Your task to perform on an android device: empty trash in google photos Image 0: 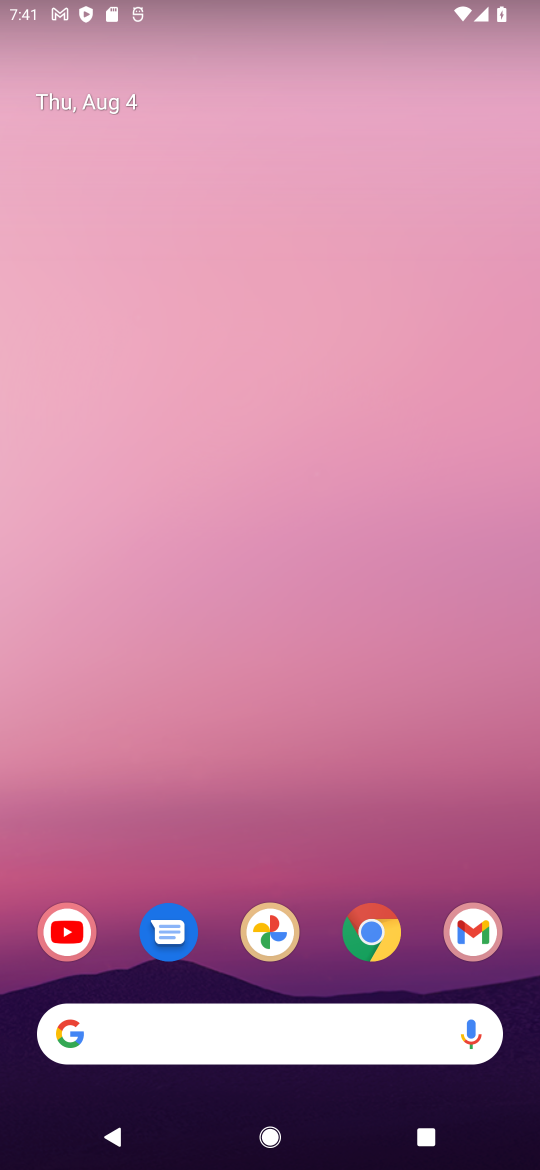
Step 0: click (260, 937)
Your task to perform on an android device: empty trash in google photos Image 1: 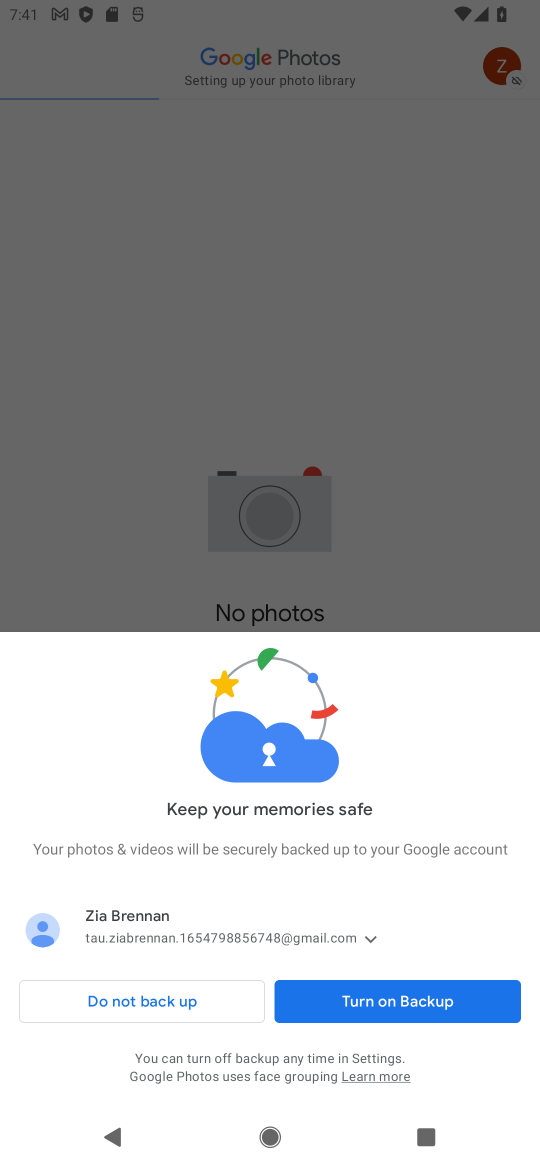
Step 1: click (360, 1003)
Your task to perform on an android device: empty trash in google photos Image 2: 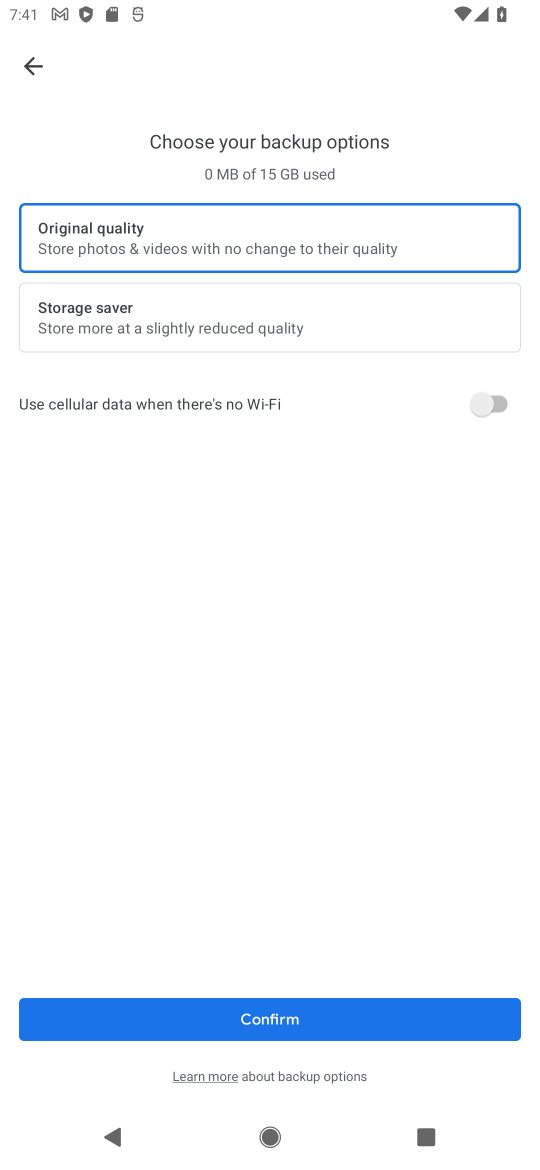
Step 2: click (420, 1026)
Your task to perform on an android device: empty trash in google photos Image 3: 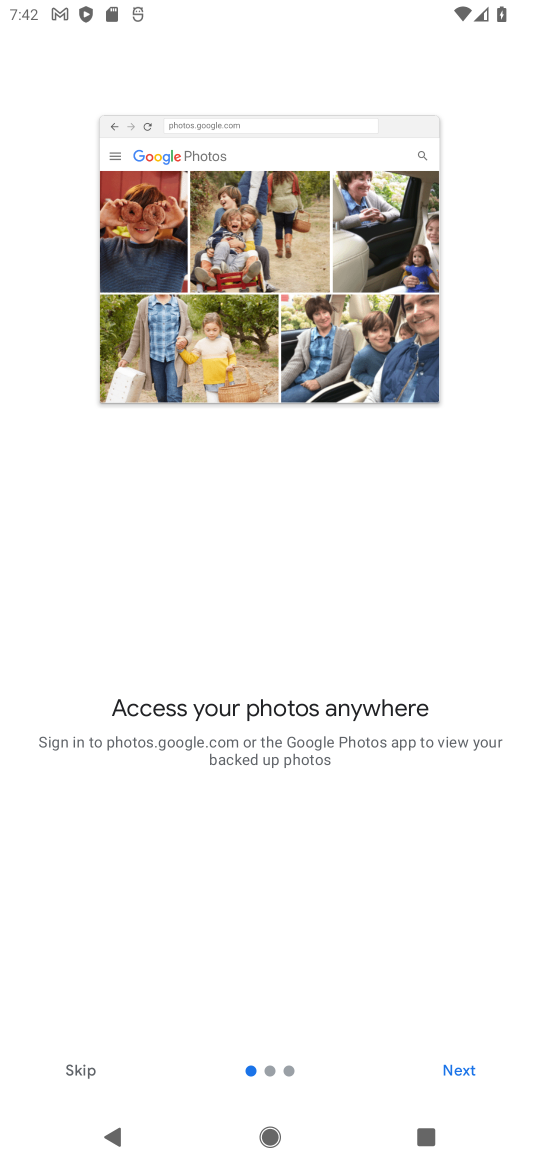
Step 3: click (68, 1073)
Your task to perform on an android device: empty trash in google photos Image 4: 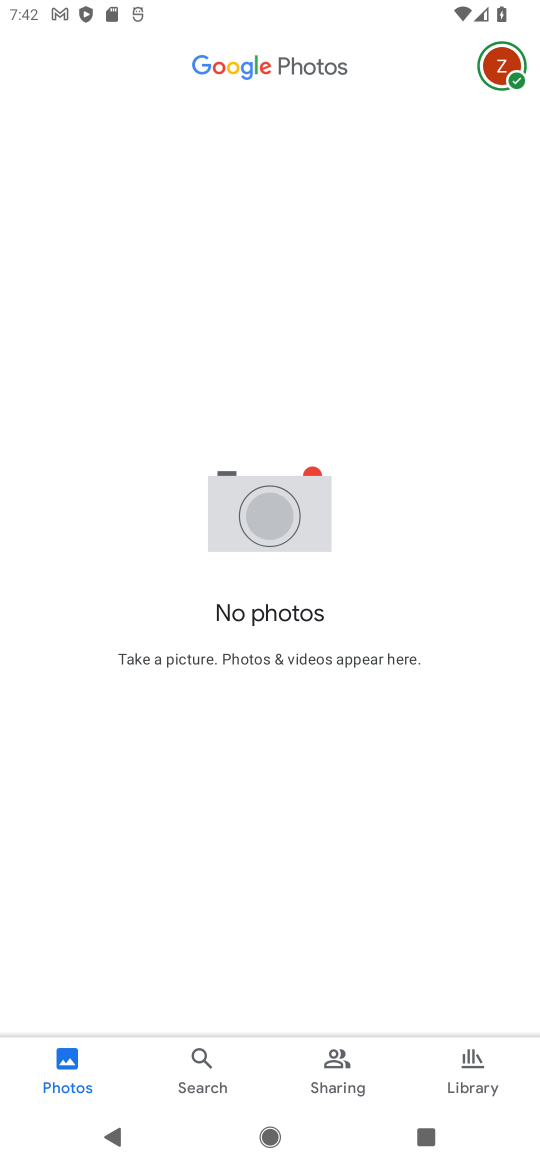
Step 4: click (471, 1071)
Your task to perform on an android device: empty trash in google photos Image 5: 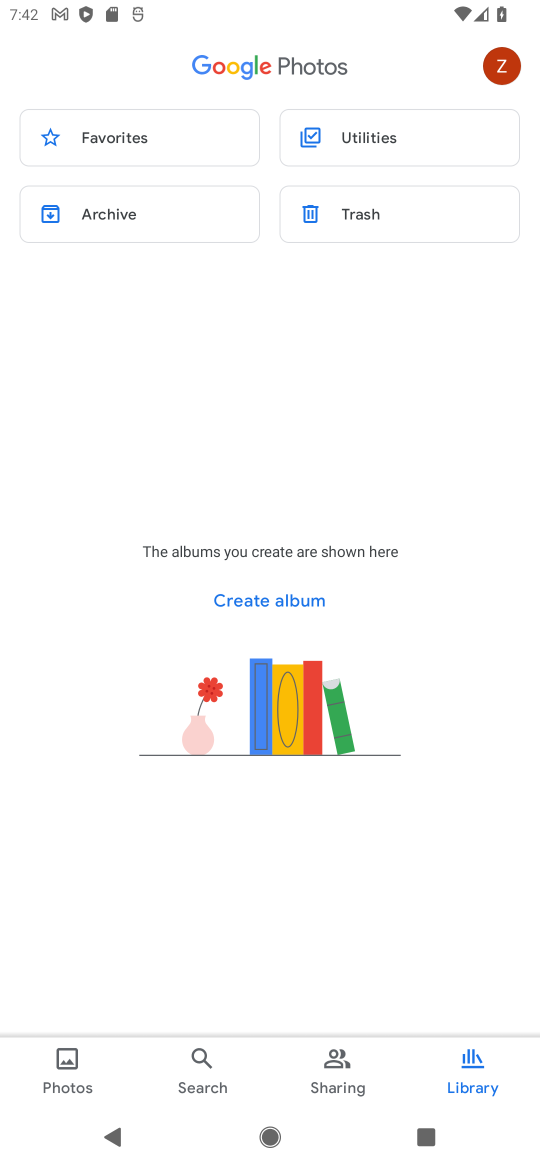
Step 5: click (398, 206)
Your task to perform on an android device: empty trash in google photos Image 6: 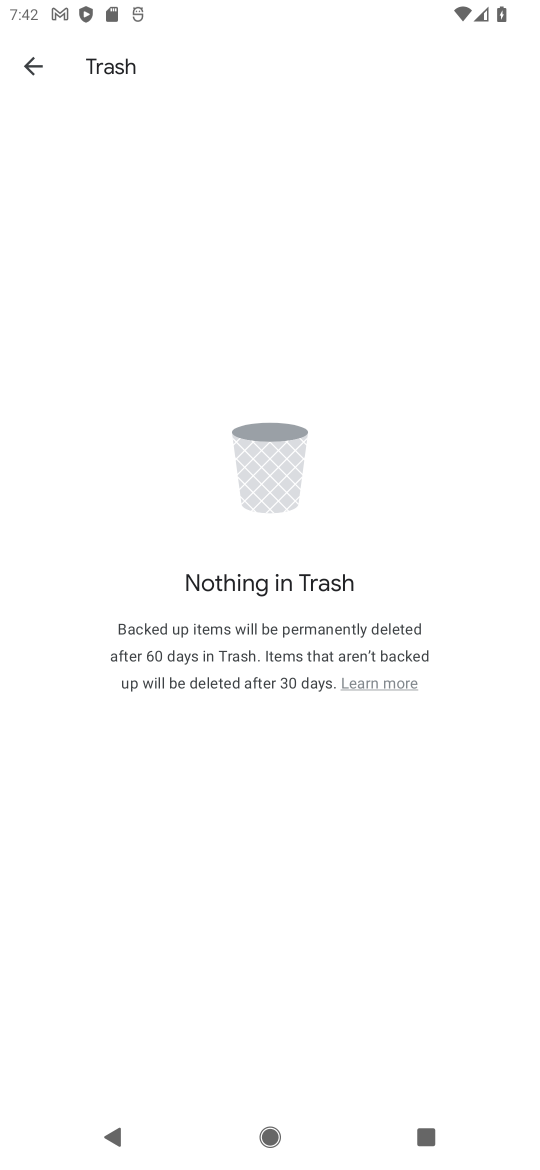
Step 6: task complete